Your task to perform on an android device: Do I have any events this weekend? Image 0: 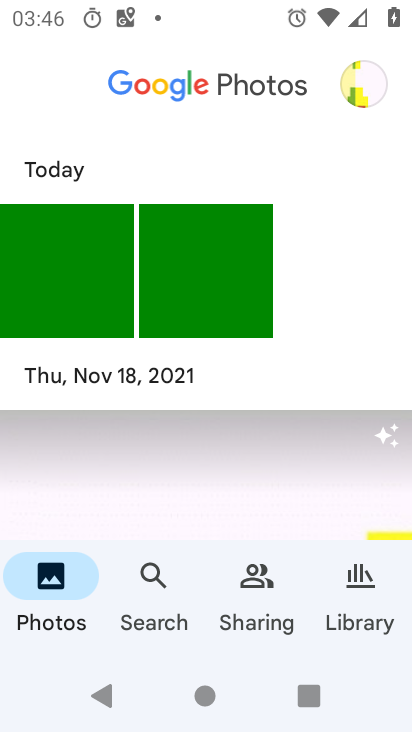
Step 0: press home button
Your task to perform on an android device: Do I have any events this weekend? Image 1: 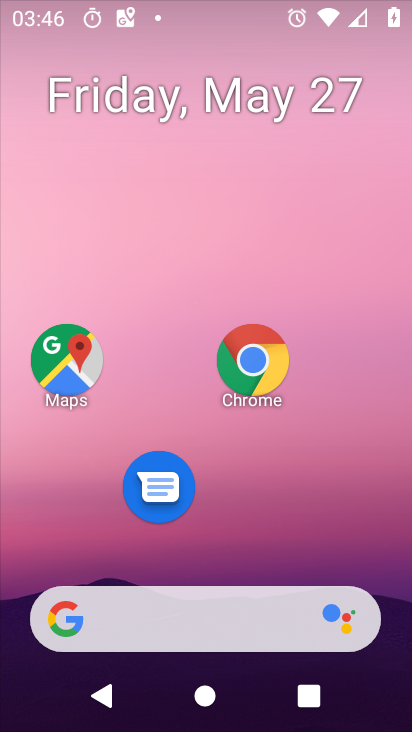
Step 1: drag from (268, 527) to (295, 61)
Your task to perform on an android device: Do I have any events this weekend? Image 2: 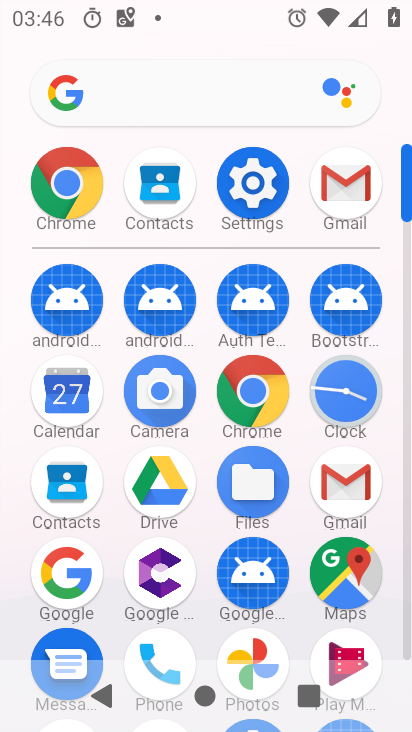
Step 2: click (67, 392)
Your task to perform on an android device: Do I have any events this weekend? Image 3: 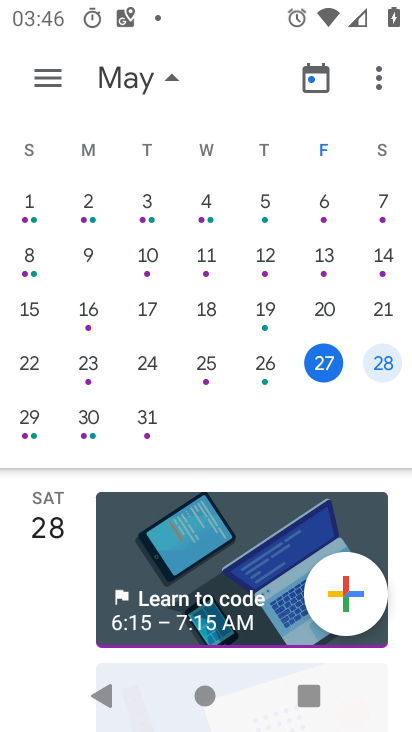
Step 3: click (385, 366)
Your task to perform on an android device: Do I have any events this weekend? Image 4: 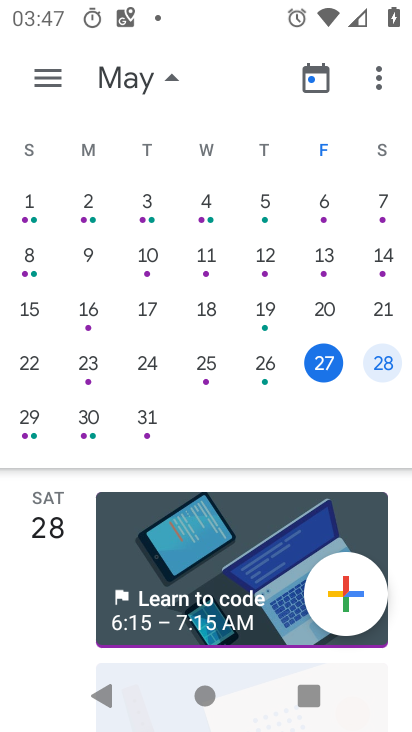
Step 4: task complete